Your task to perform on an android device: open app "Cash App" (install if not already installed) Image 0: 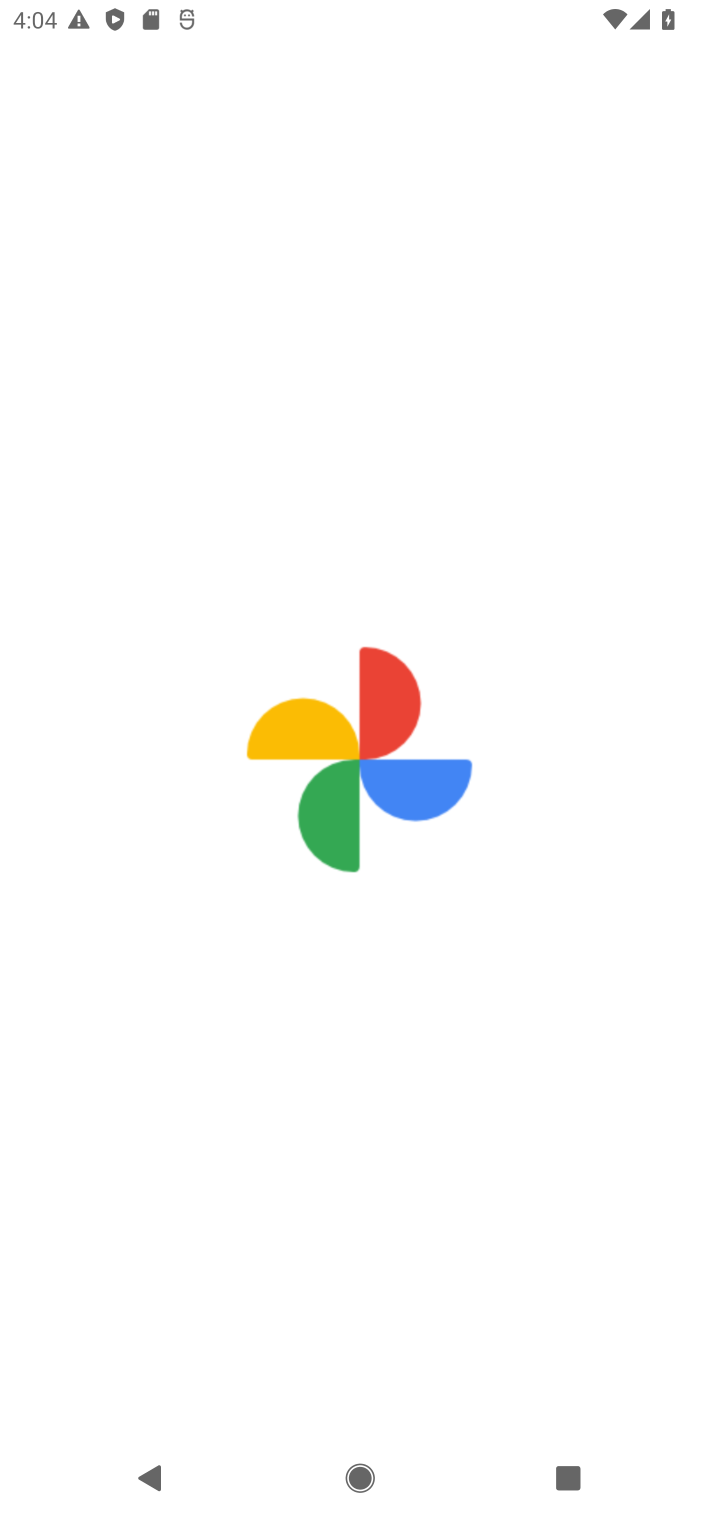
Step 0: press home button
Your task to perform on an android device: open app "Cash App" (install if not already installed) Image 1: 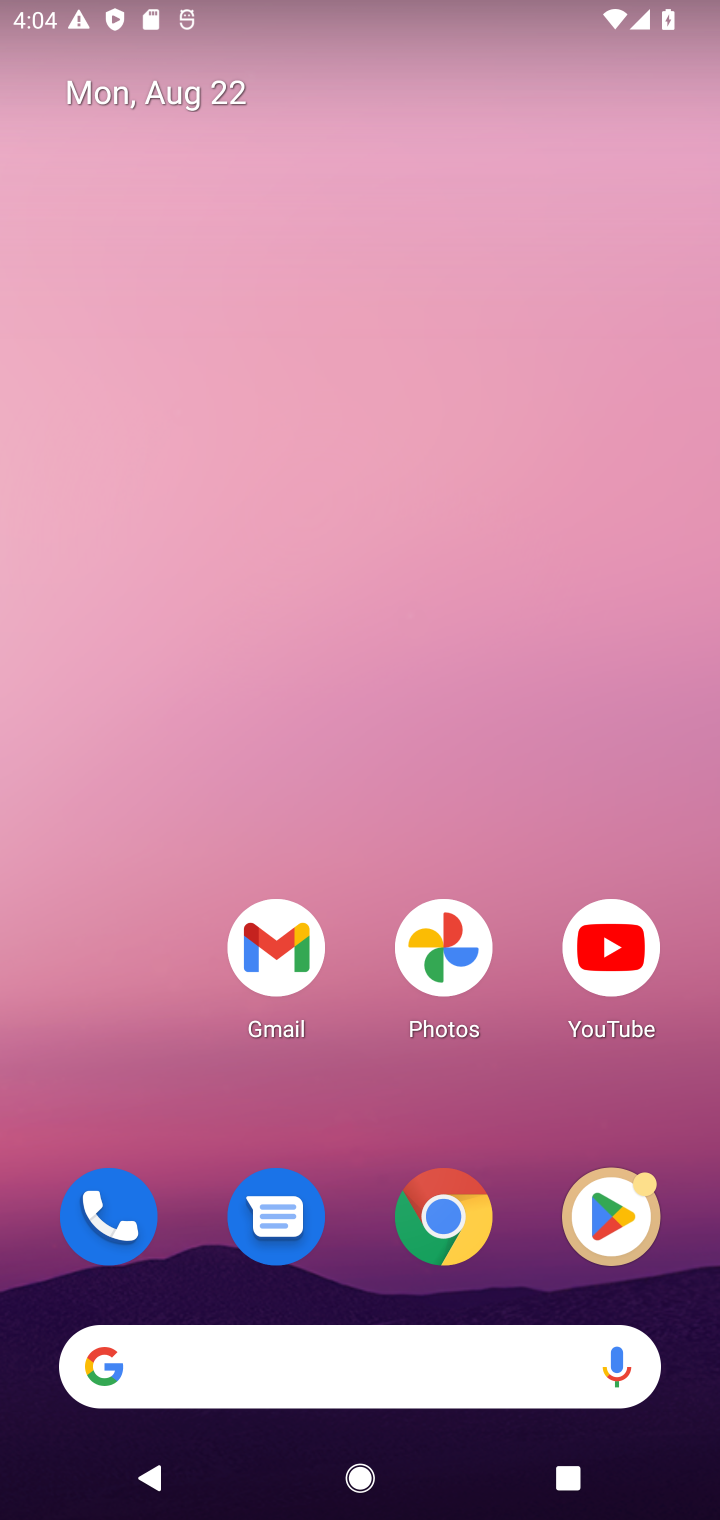
Step 1: drag from (103, 916) to (252, 170)
Your task to perform on an android device: open app "Cash App" (install if not already installed) Image 2: 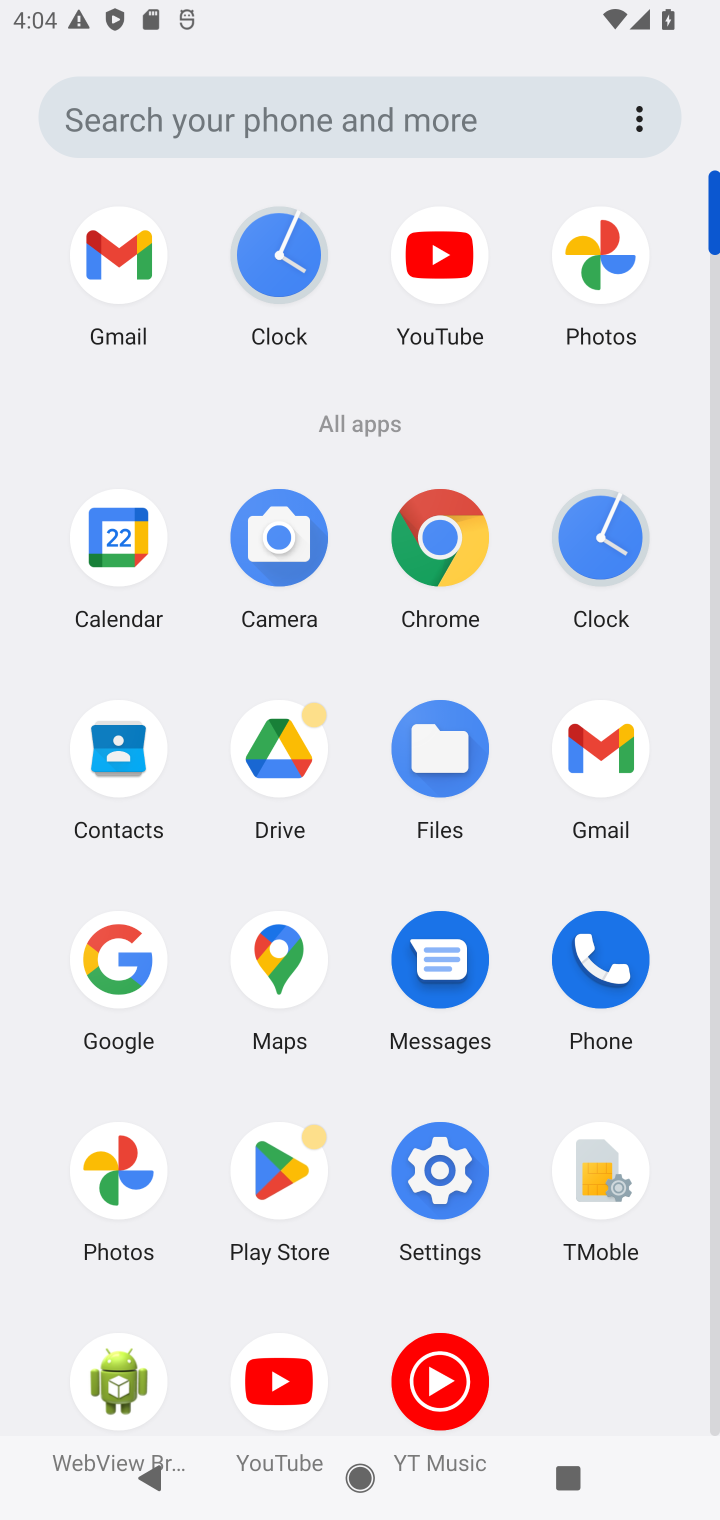
Step 2: click (280, 1171)
Your task to perform on an android device: open app "Cash App" (install if not already installed) Image 3: 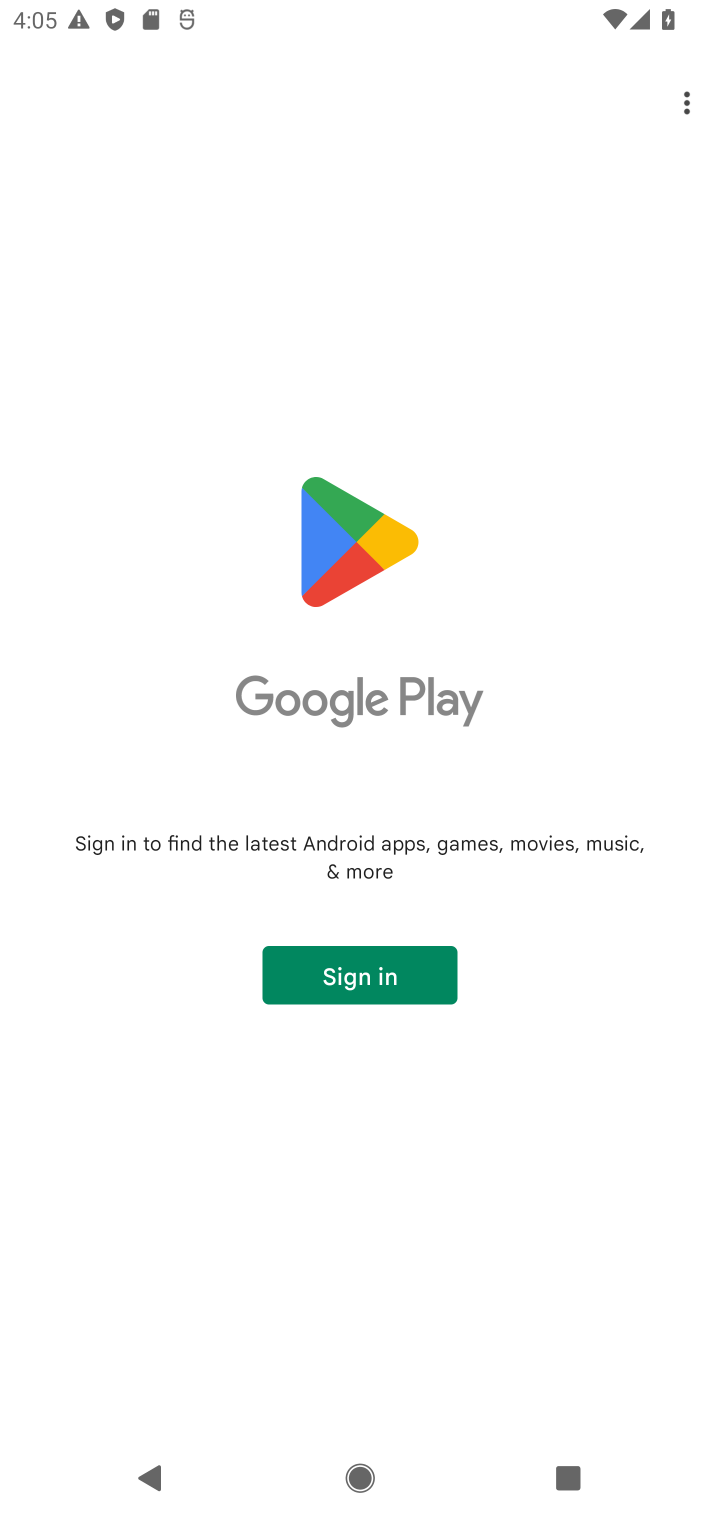
Step 3: task complete